Your task to perform on an android device: Go to Yahoo.com Image 0: 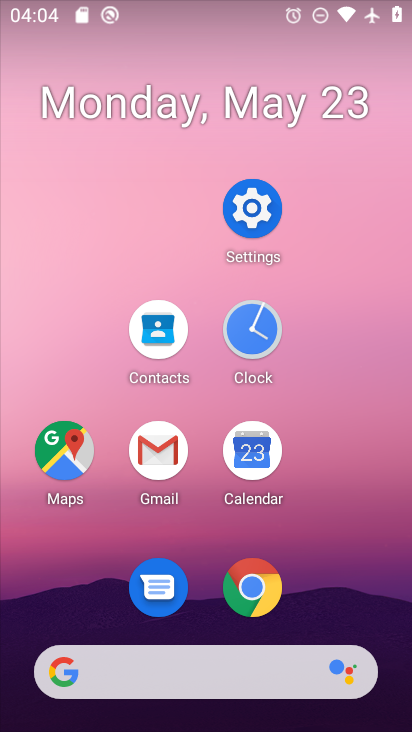
Step 0: click (238, 669)
Your task to perform on an android device: Go to Yahoo.com Image 1: 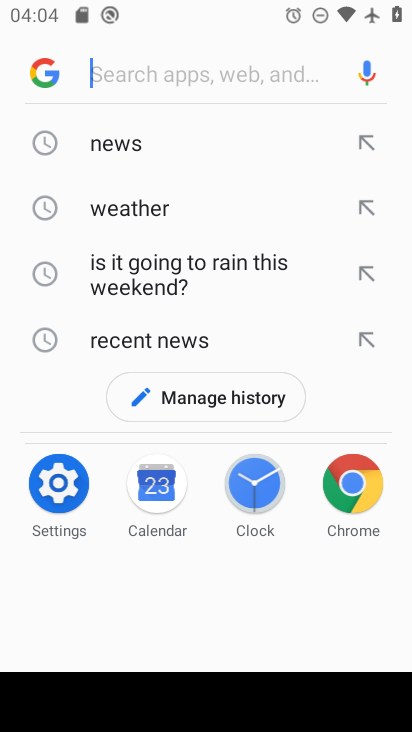
Step 1: type "yahoo.com"
Your task to perform on an android device: Go to Yahoo.com Image 2: 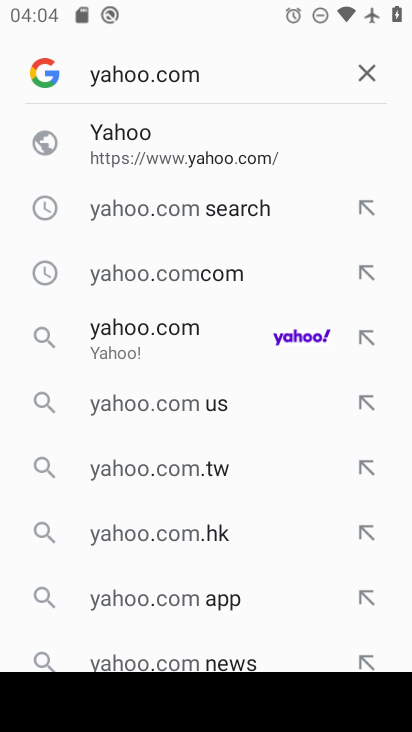
Step 2: click (132, 123)
Your task to perform on an android device: Go to Yahoo.com Image 3: 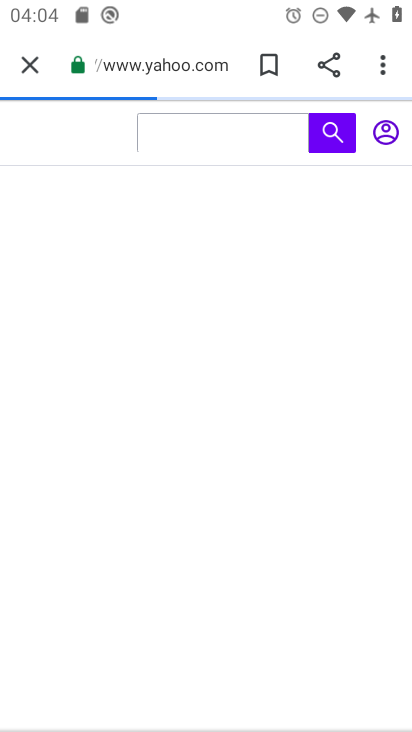
Step 3: task complete